Your task to perform on an android device: Search for "acer predator" on bestbuy, select the first entry, and add it to the cart. Image 0: 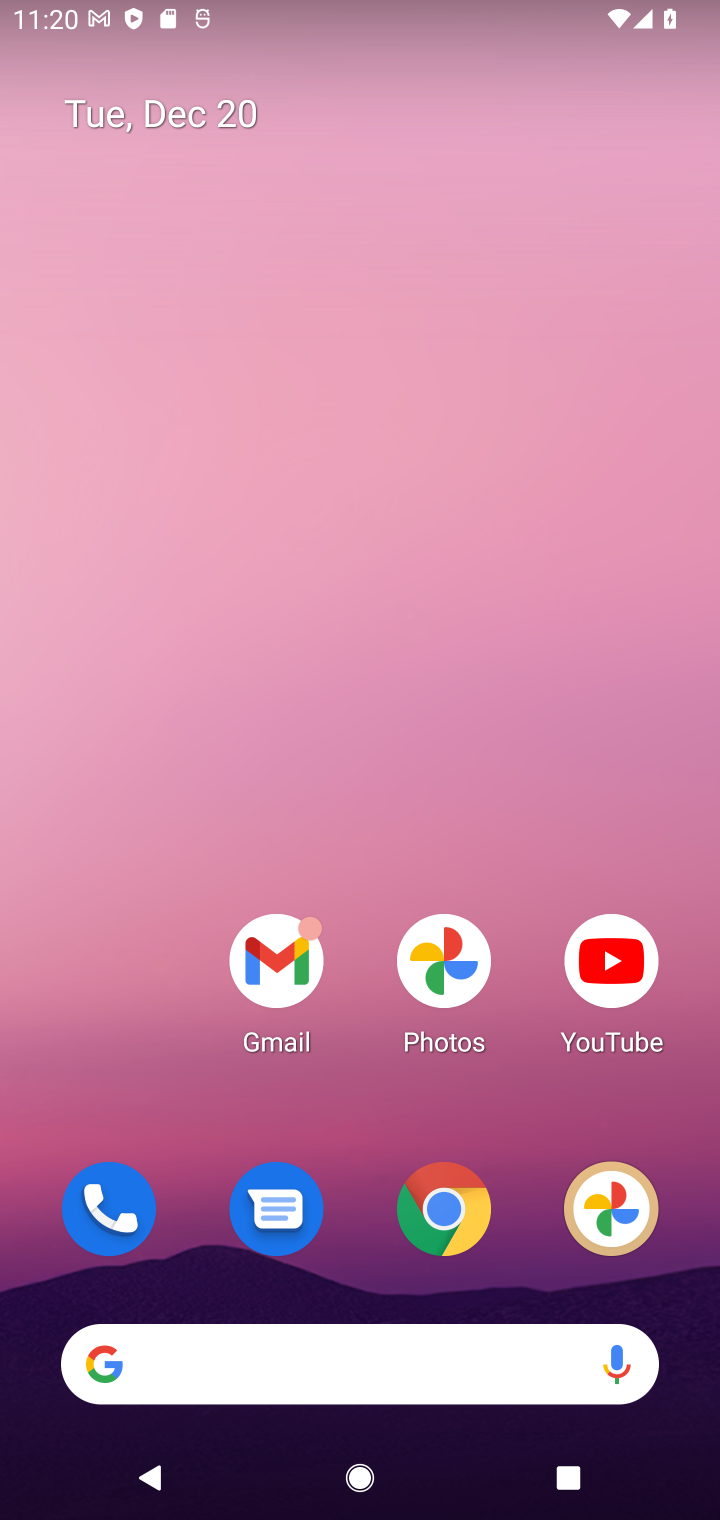
Step 0: click (436, 1213)
Your task to perform on an android device: Search for "acer predator" on bestbuy, select the first entry, and add it to the cart. Image 1: 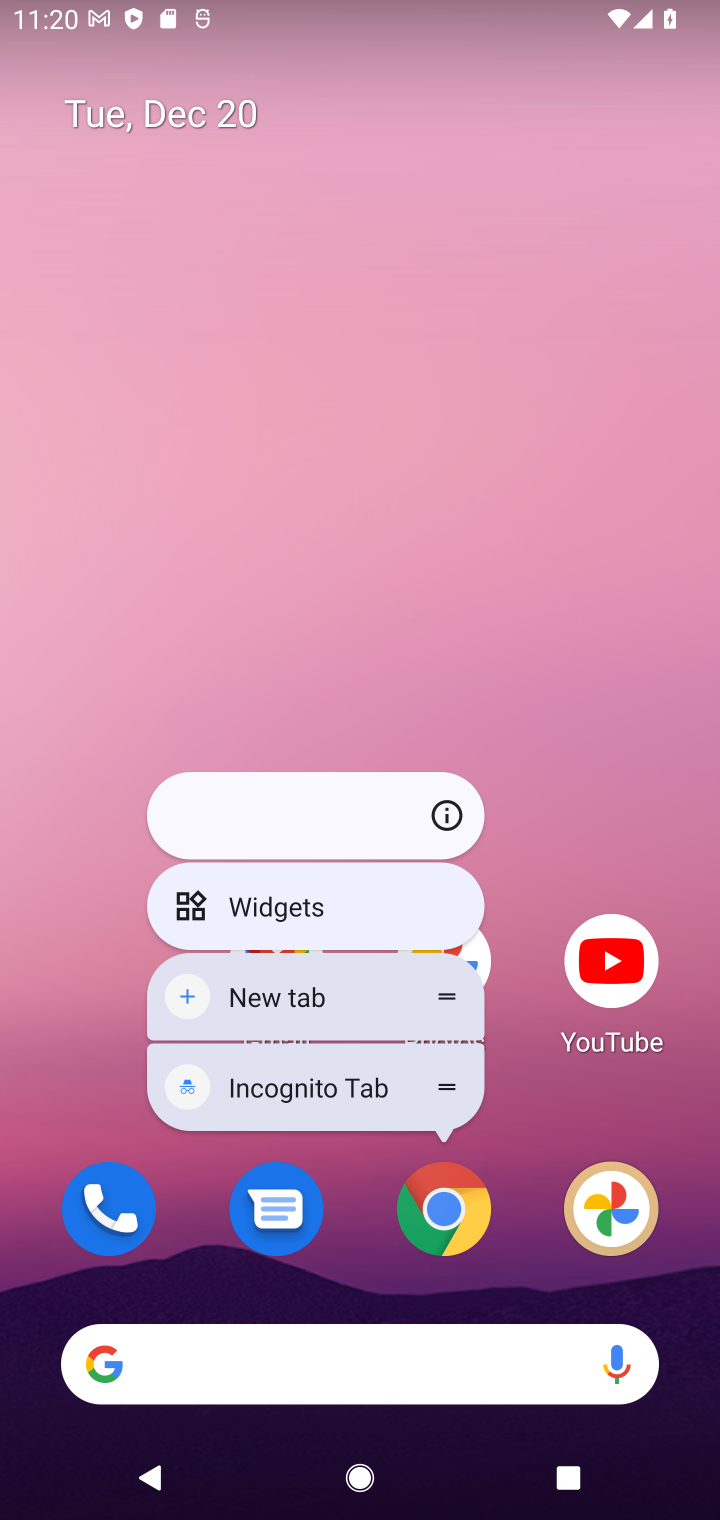
Step 1: click (436, 1213)
Your task to perform on an android device: Search for "acer predator" on bestbuy, select the first entry, and add it to the cart. Image 2: 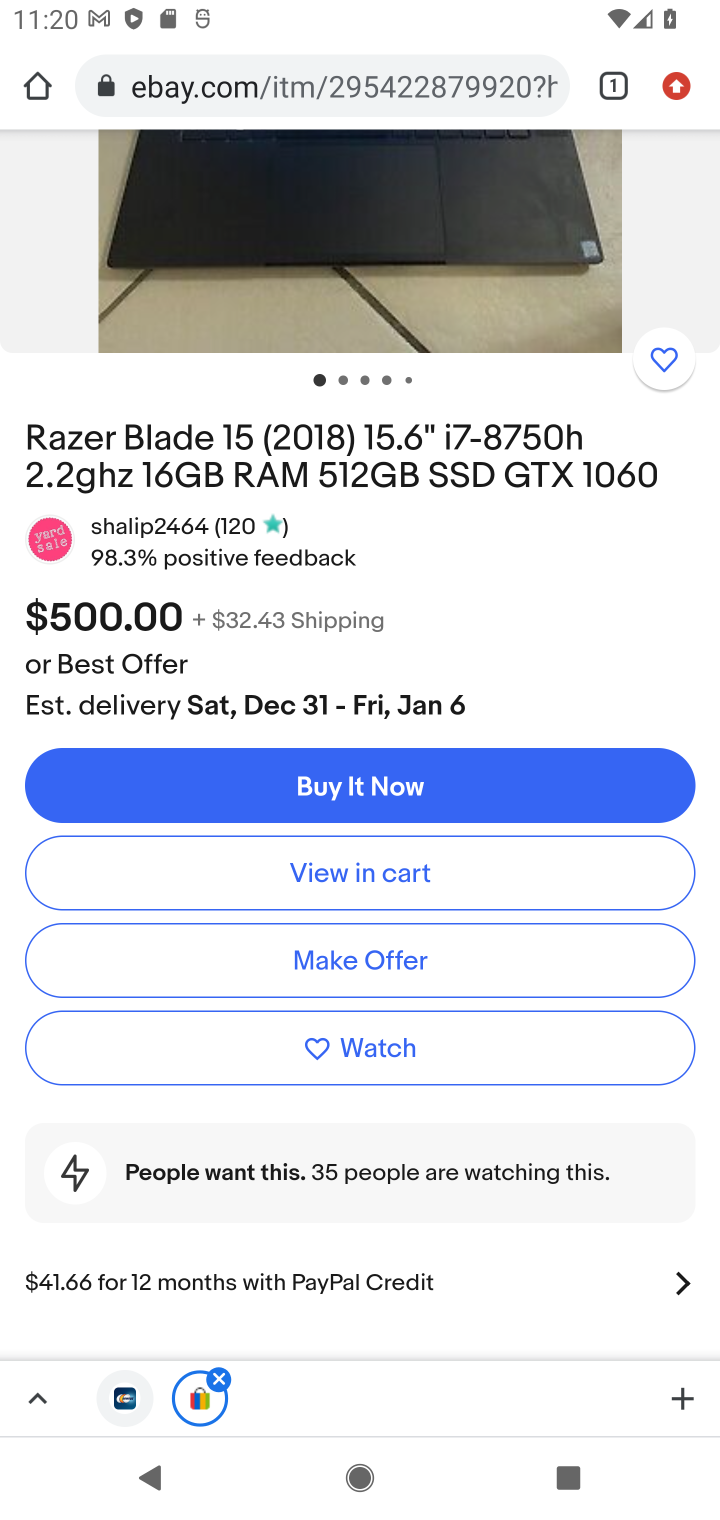
Step 2: click (261, 95)
Your task to perform on an android device: Search for "acer predator" on bestbuy, select the first entry, and add it to the cart. Image 3: 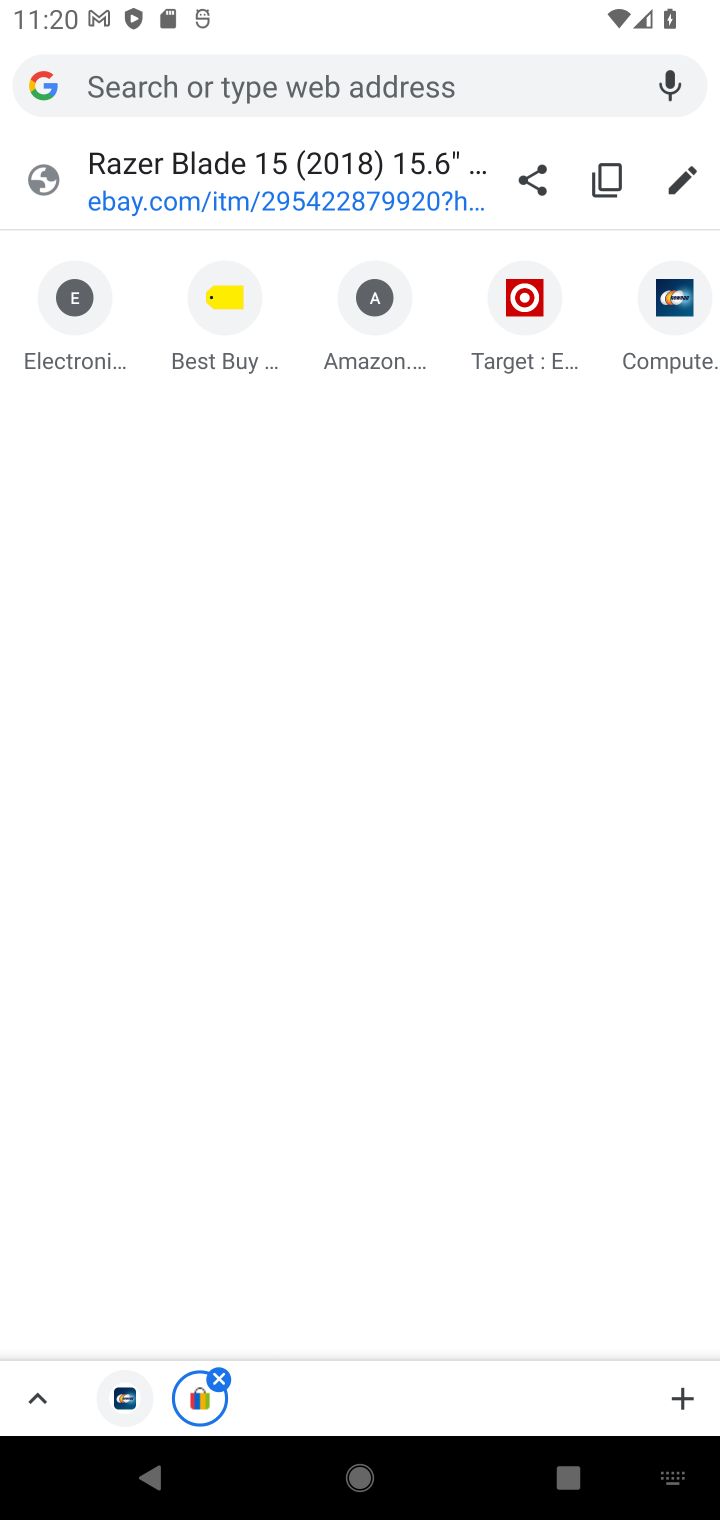
Step 3: click (222, 309)
Your task to perform on an android device: Search for "acer predator" on bestbuy, select the first entry, and add it to the cart. Image 4: 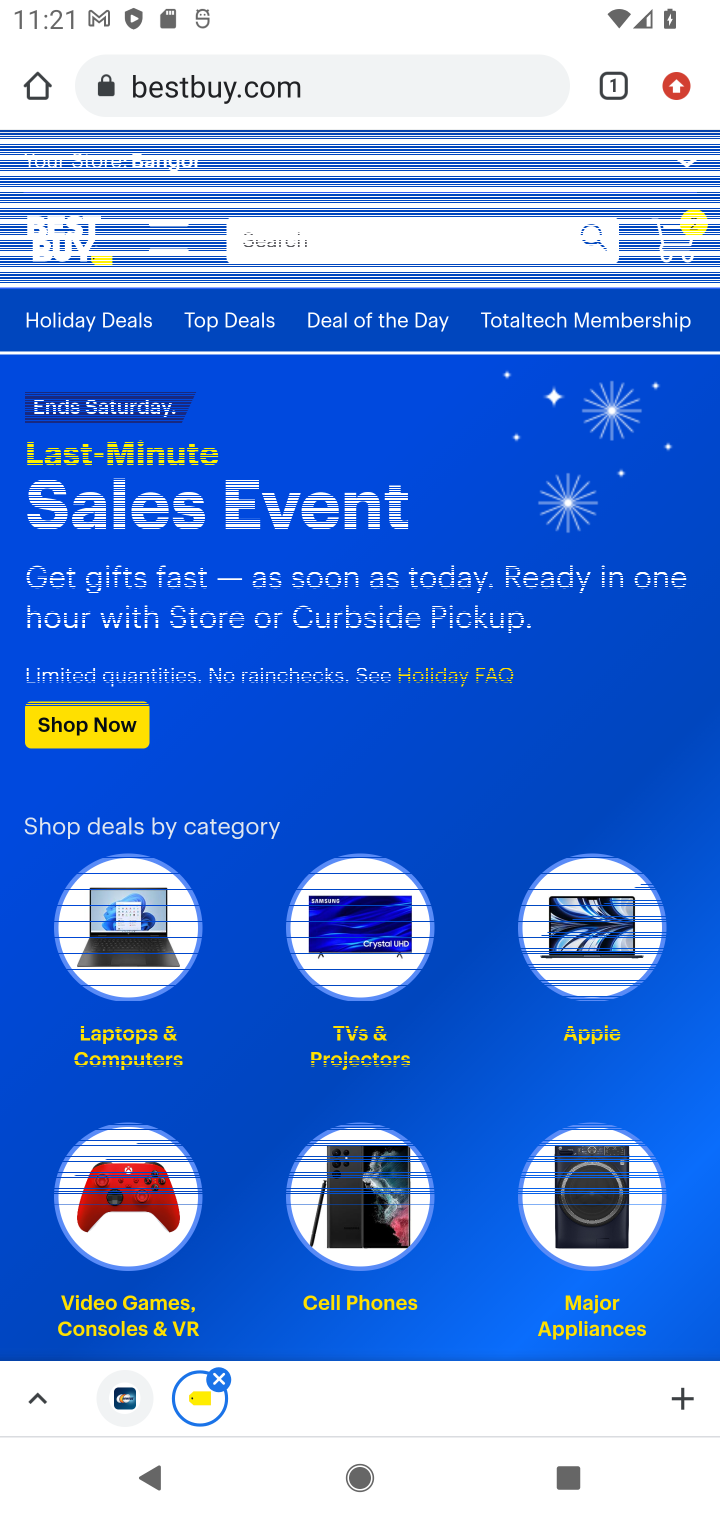
Step 4: click (311, 248)
Your task to perform on an android device: Search for "acer predator" on bestbuy, select the first entry, and add it to the cart. Image 5: 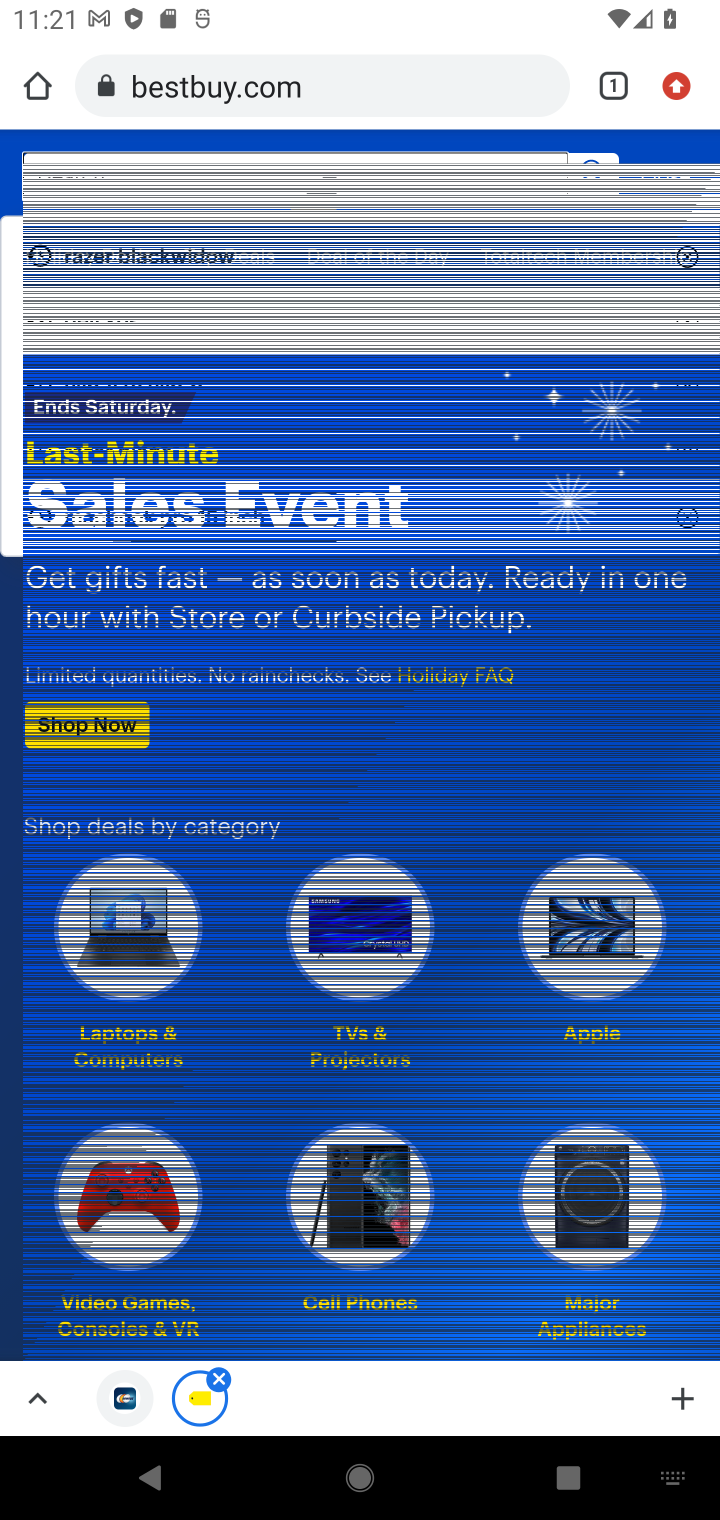
Step 5: type "acer predator"
Your task to perform on an android device: Search for "acer predator" on bestbuy, select the first entry, and add it to the cart. Image 6: 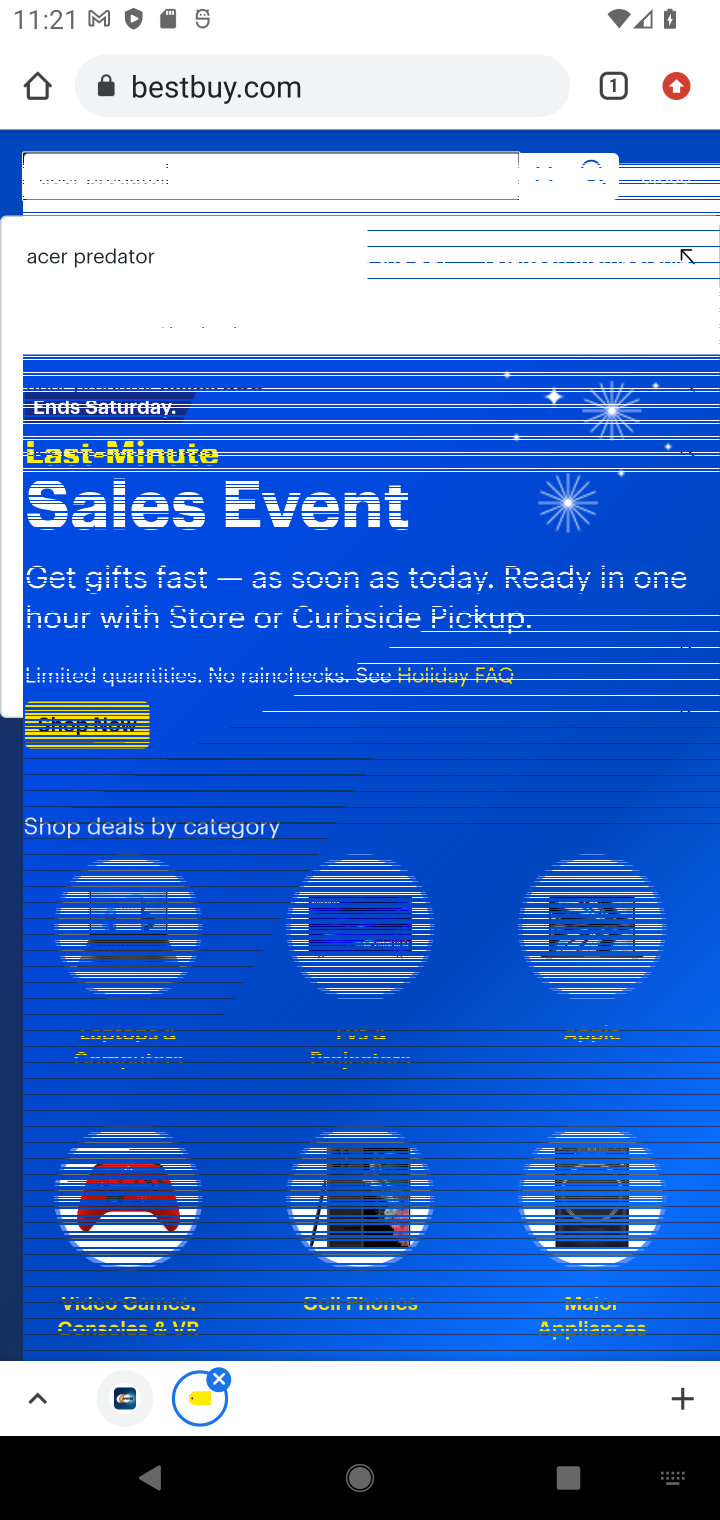
Step 6: click (88, 264)
Your task to perform on an android device: Search for "acer predator" on bestbuy, select the first entry, and add it to the cart. Image 7: 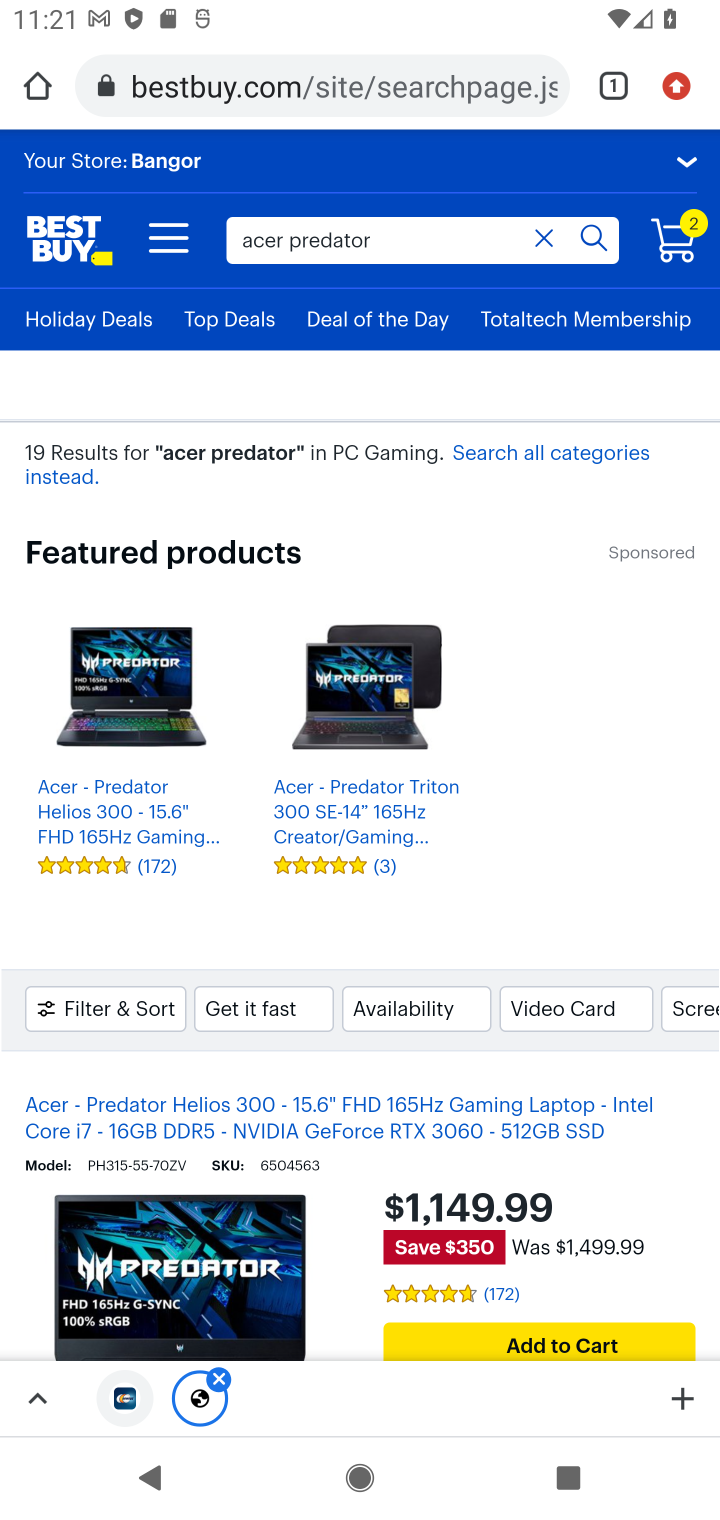
Step 7: drag from (317, 1095) to (313, 784)
Your task to perform on an android device: Search for "acer predator" on bestbuy, select the first entry, and add it to the cart. Image 8: 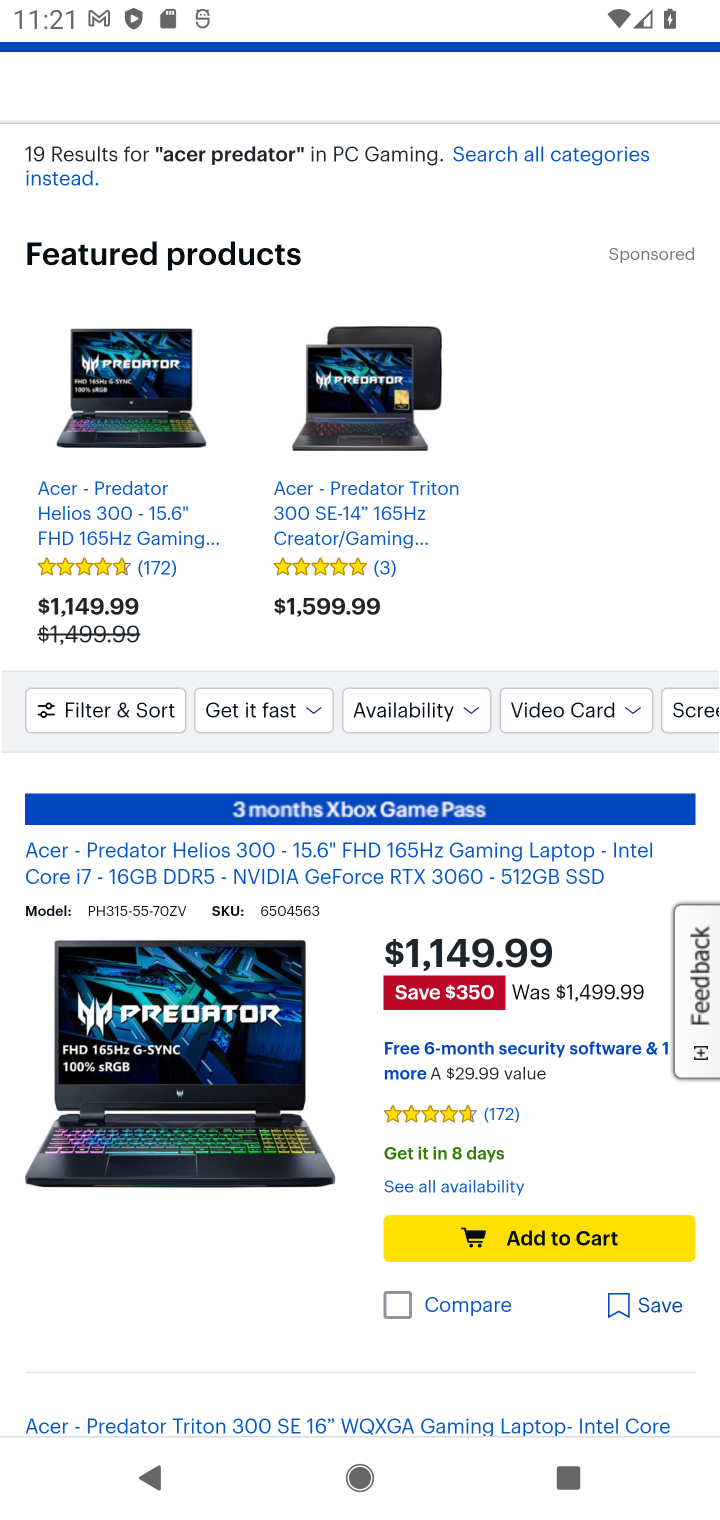
Step 8: click (505, 1232)
Your task to perform on an android device: Search for "acer predator" on bestbuy, select the first entry, and add it to the cart. Image 9: 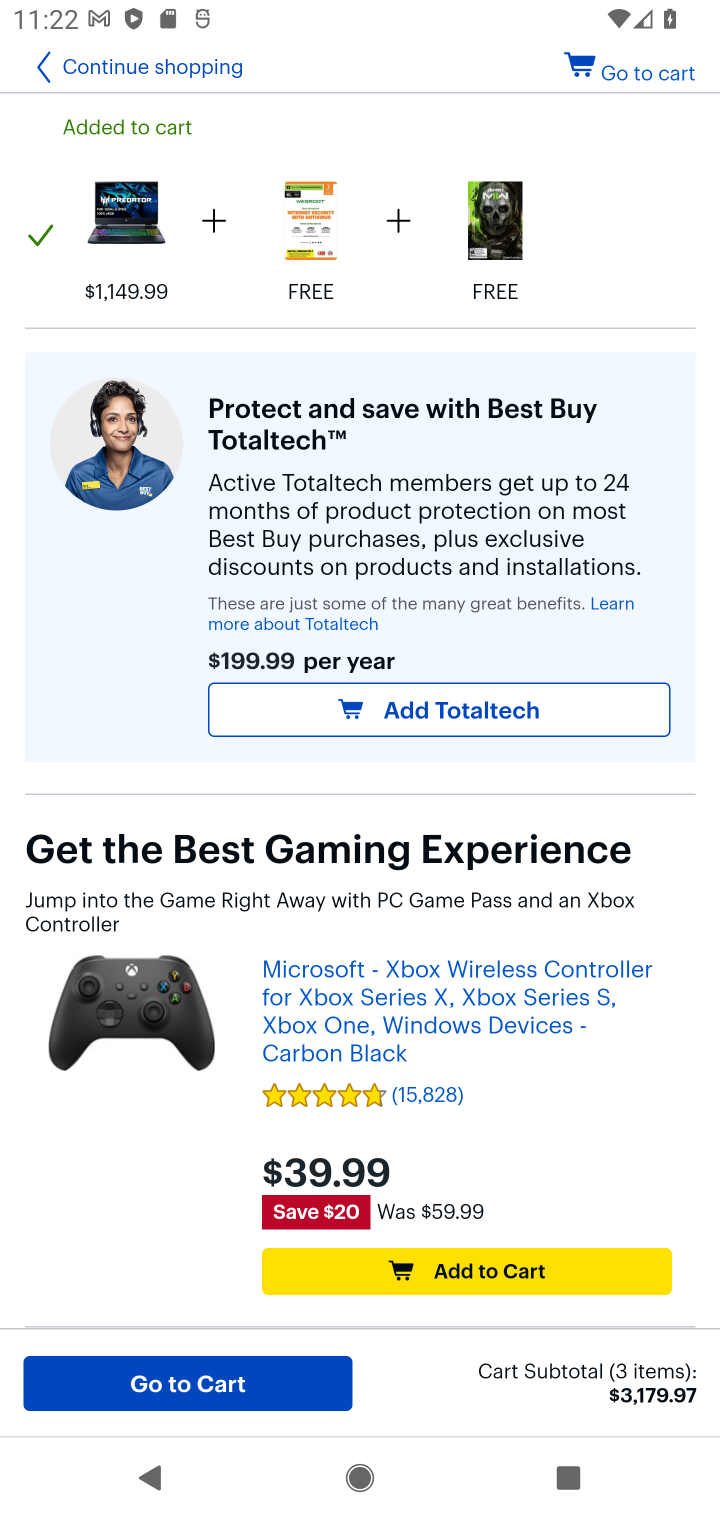
Step 9: task complete